Your task to perform on an android device: Open the Play Movies app and select the watchlist tab. Image 0: 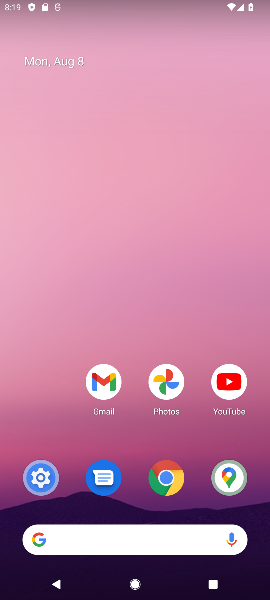
Step 0: press home button
Your task to perform on an android device: Open the Play Movies app and select the watchlist tab. Image 1: 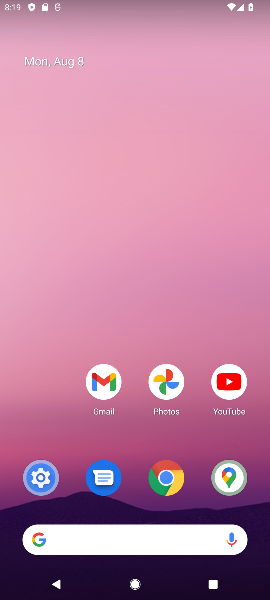
Step 1: task complete